Your task to perform on an android device: open device folders in google photos Image 0: 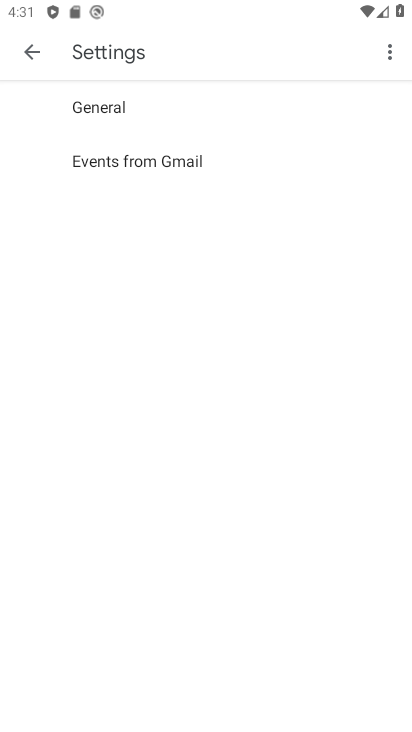
Step 0: press home button
Your task to perform on an android device: open device folders in google photos Image 1: 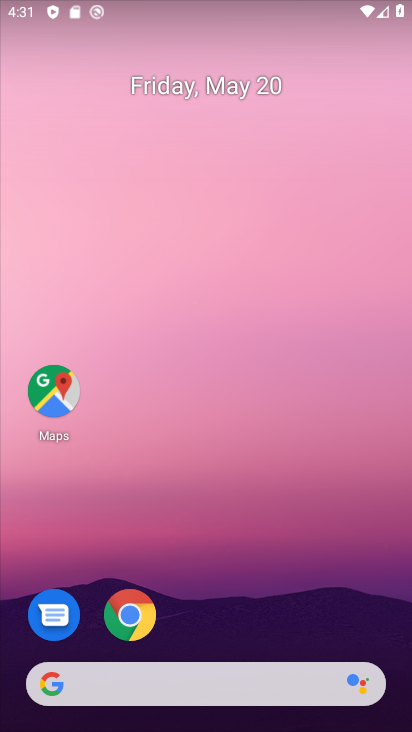
Step 1: drag from (274, 683) to (277, 251)
Your task to perform on an android device: open device folders in google photos Image 2: 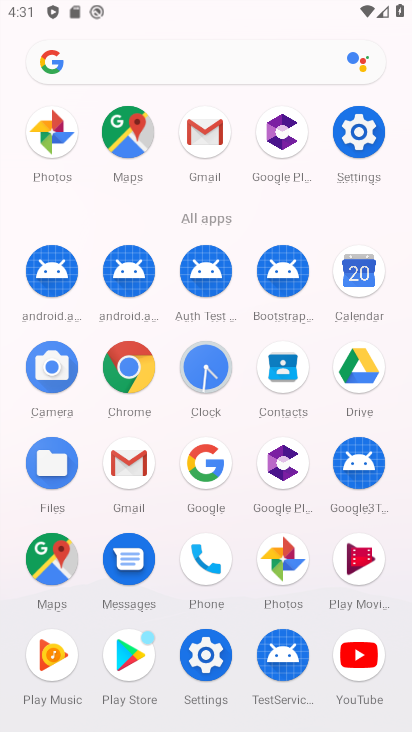
Step 2: click (272, 564)
Your task to perform on an android device: open device folders in google photos Image 3: 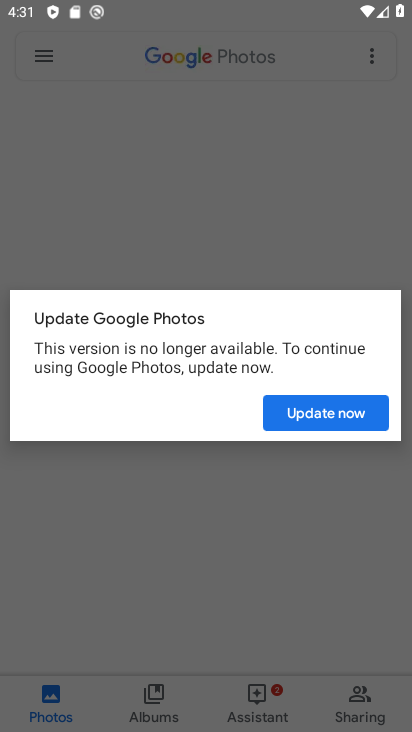
Step 3: click (336, 418)
Your task to perform on an android device: open device folders in google photos Image 4: 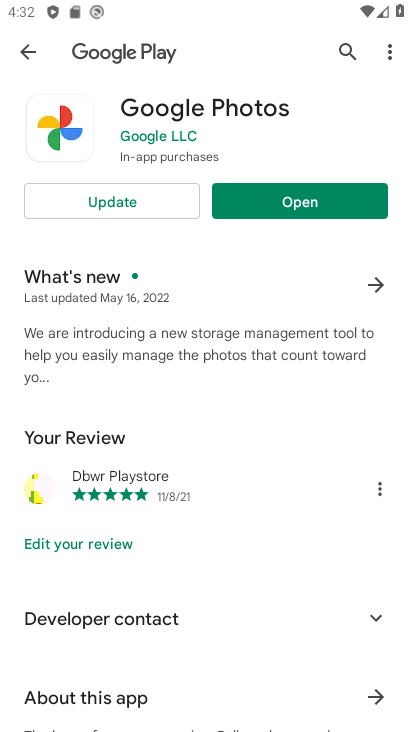
Step 4: click (165, 198)
Your task to perform on an android device: open device folders in google photos Image 5: 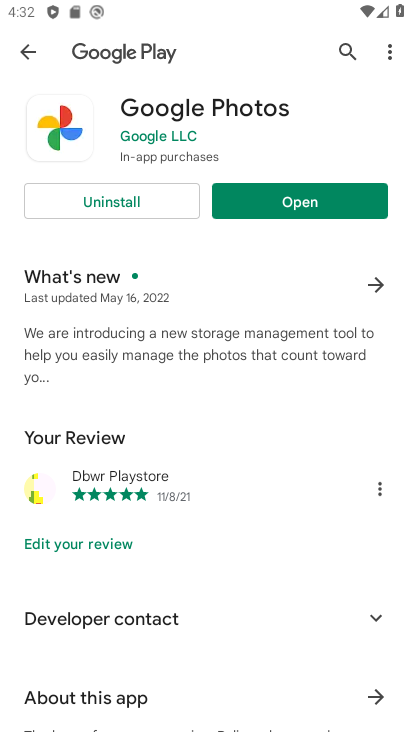
Step 5: click (249, 200)
Your task to perform on an android device: open device folders in google photos Image 6: 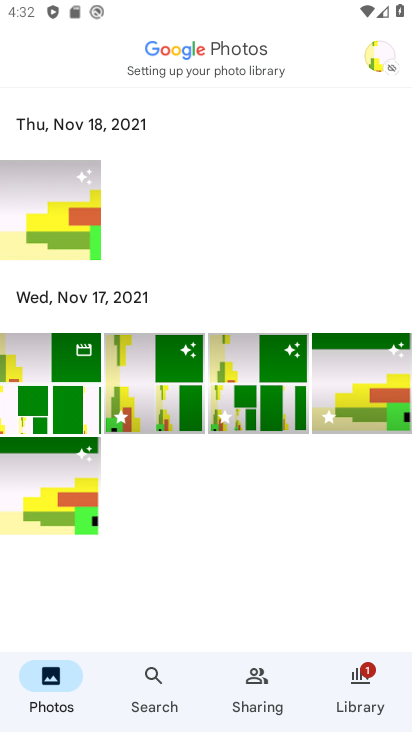
Step 6: click (370, 675)
Your task to perform on an android device: open device folders in google photos Image 7: 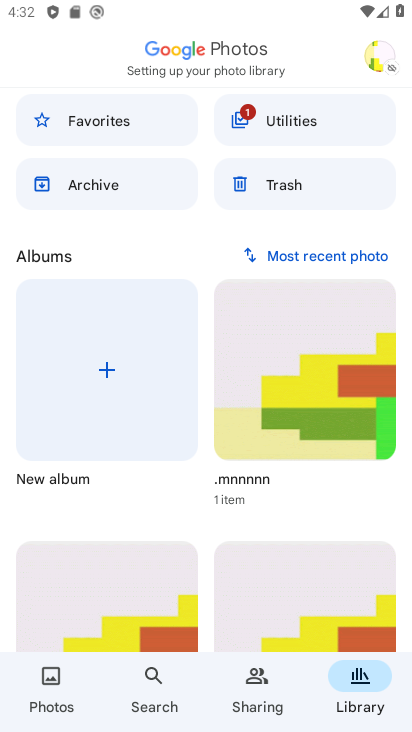
Step 7: task complete